Your task to perform on an android device: open app "Firefox Browser" Image 0: 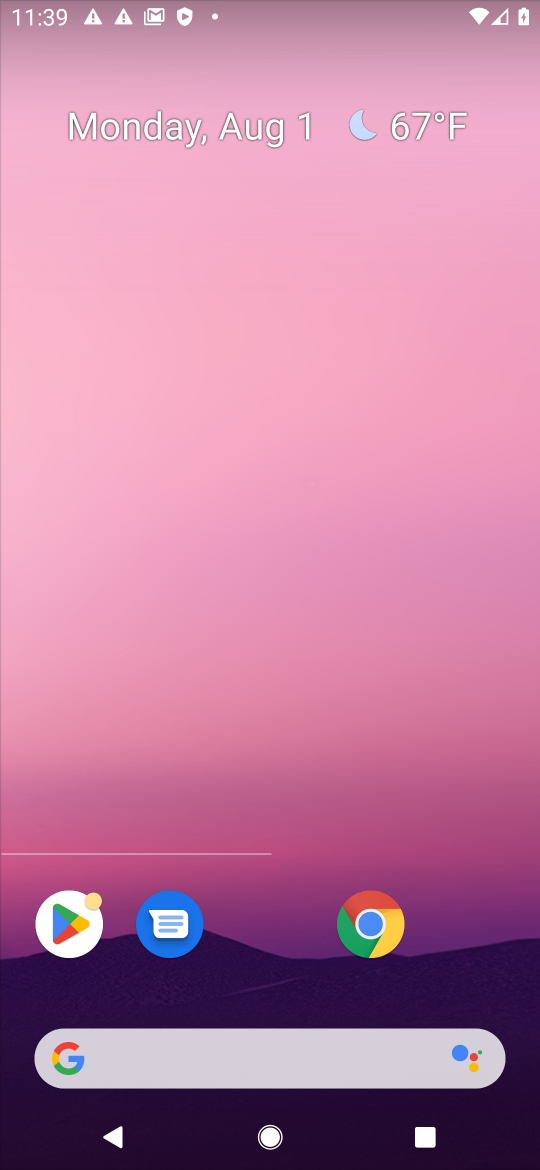
Step 0: press home button
Your task to perform on an android device: open app "Firefox Browser" Image 1: 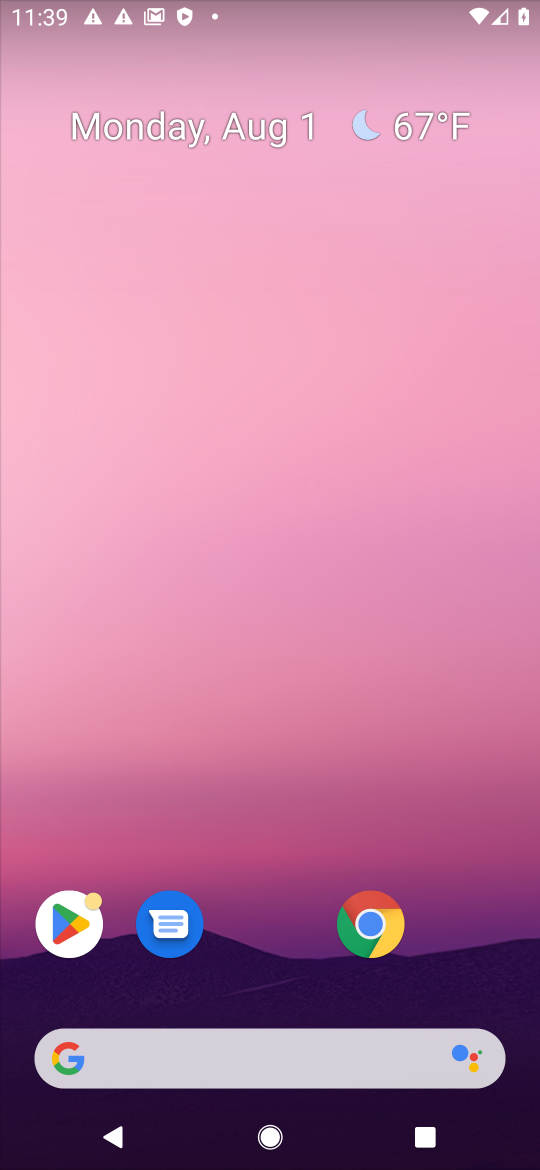
Step 1: click (61, 917)
Your task to perform on an android device: open app "Firefox Browser" Image 2: 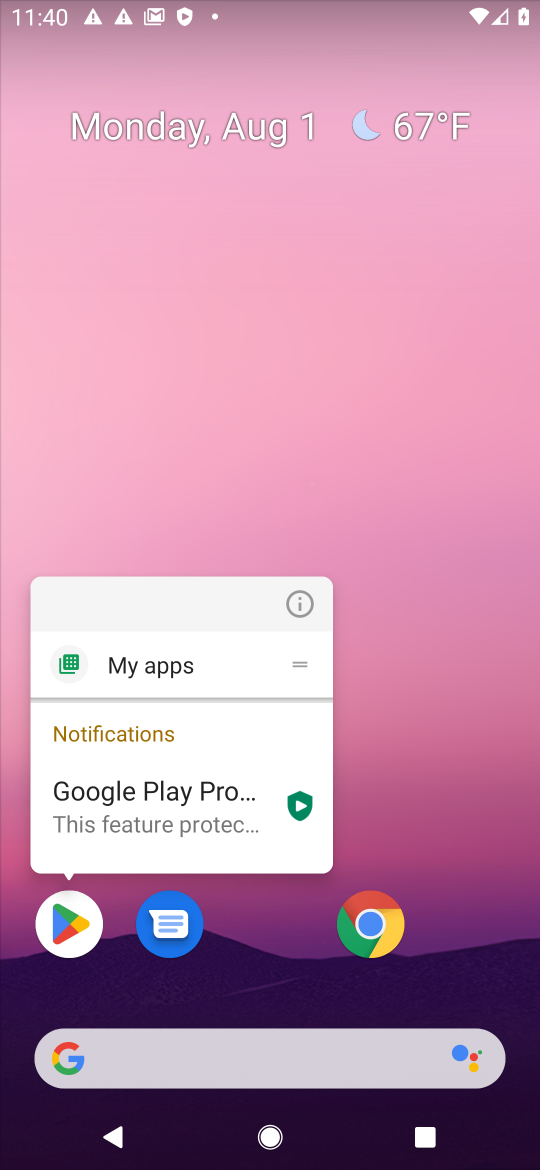
Step 2: click (58, 917)
Your task to perform on an android device: open app "Firefox Browser" Image 3: 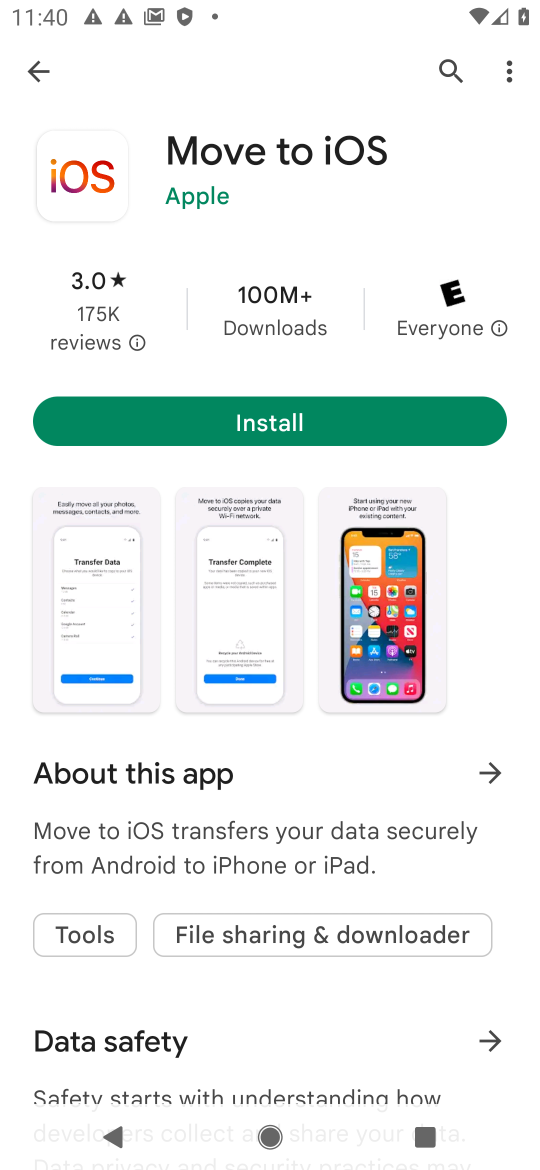
Step 3: click (62, 919)
Your task to perform on an android device: open app "Firefox Browser" Image 4: 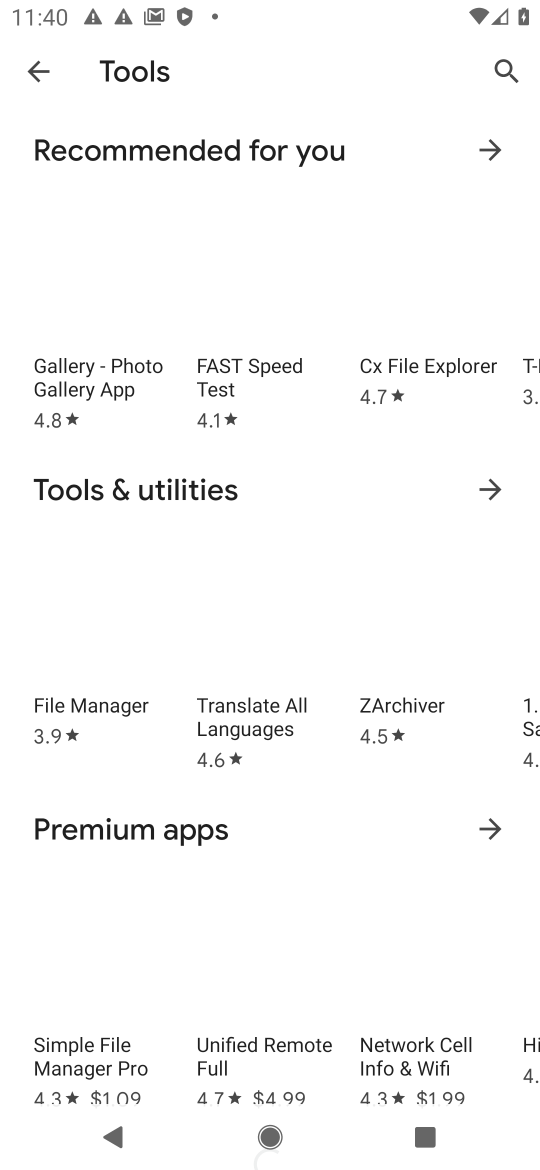
Step 4: click (53, 73)
Your task to perform on an android device: open app "Firefox Browser" Image 5: 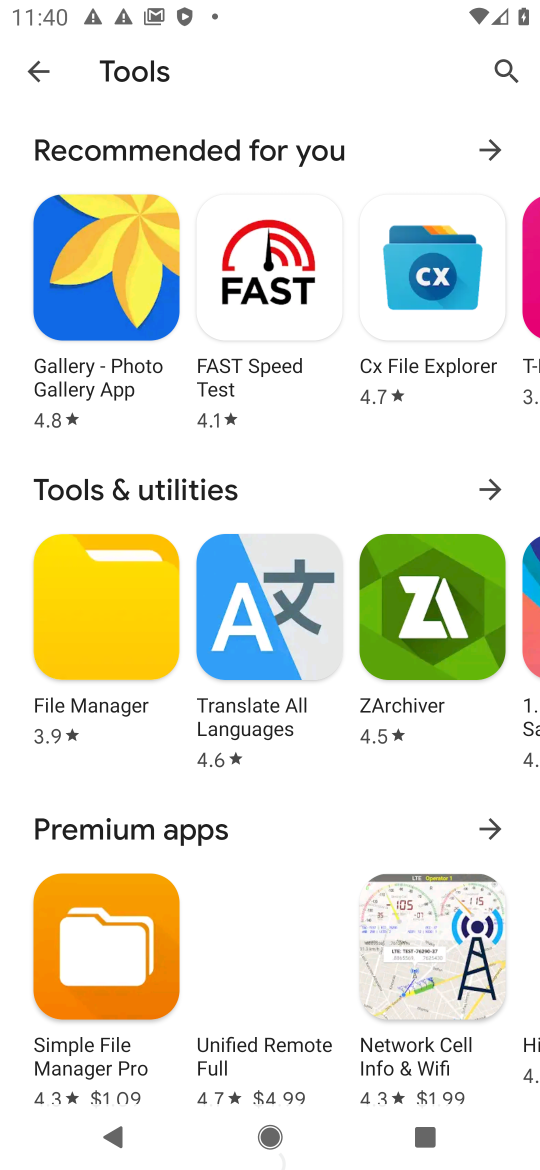
Step 5: click (501, 70)
Your task to perform on an android device: open app "Firefox Browser" Image 6: 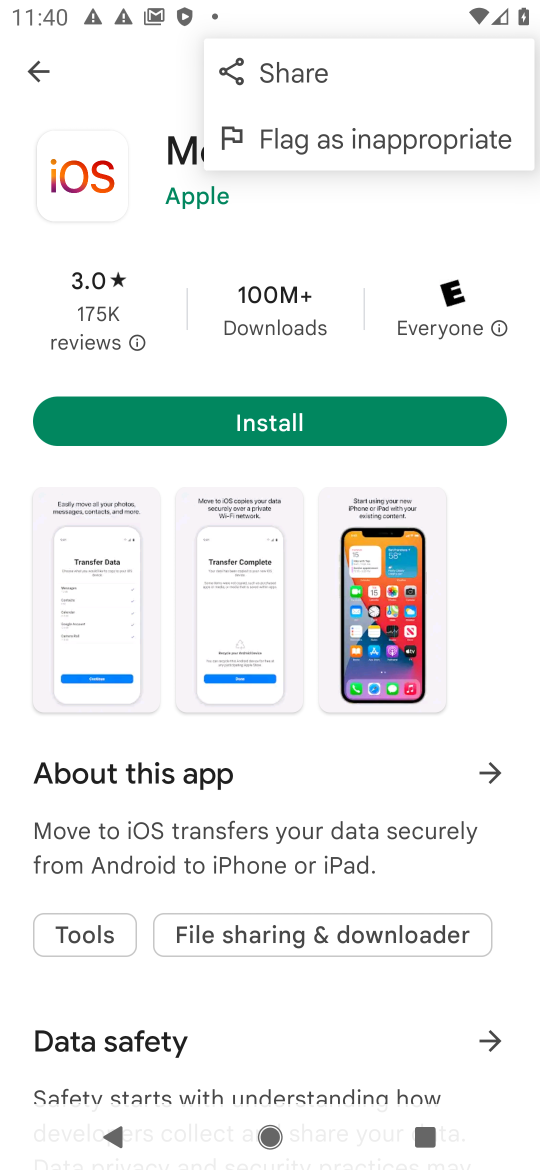
Step 6: click (117, 83)
Your task to perform on an android device: open app "Firefox Browser" Image 7: 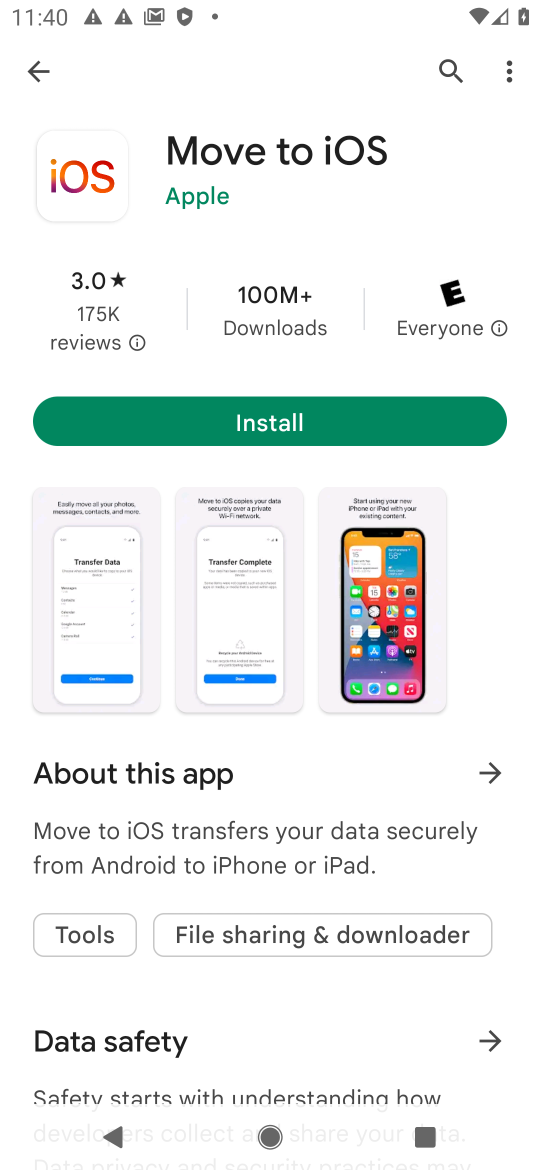
Step 7: click (438, 65)
Your task to perform on an android device: open app "Firefox Browser" Image 8: 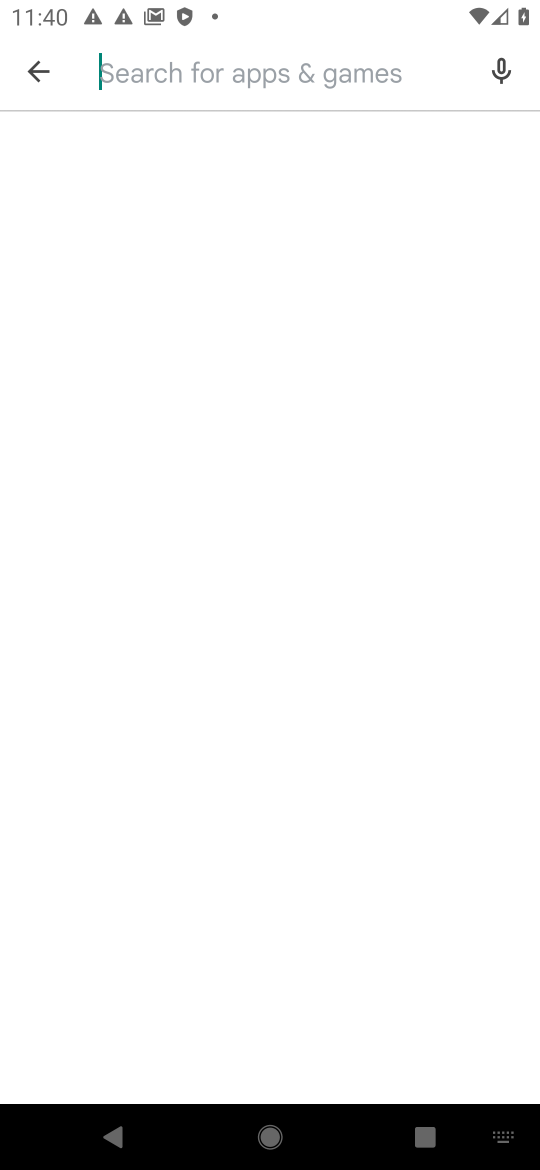
Step 8: type "Firefox Browser"
Your task to perform on an android device: open app "Firefox Browser" Image 9: 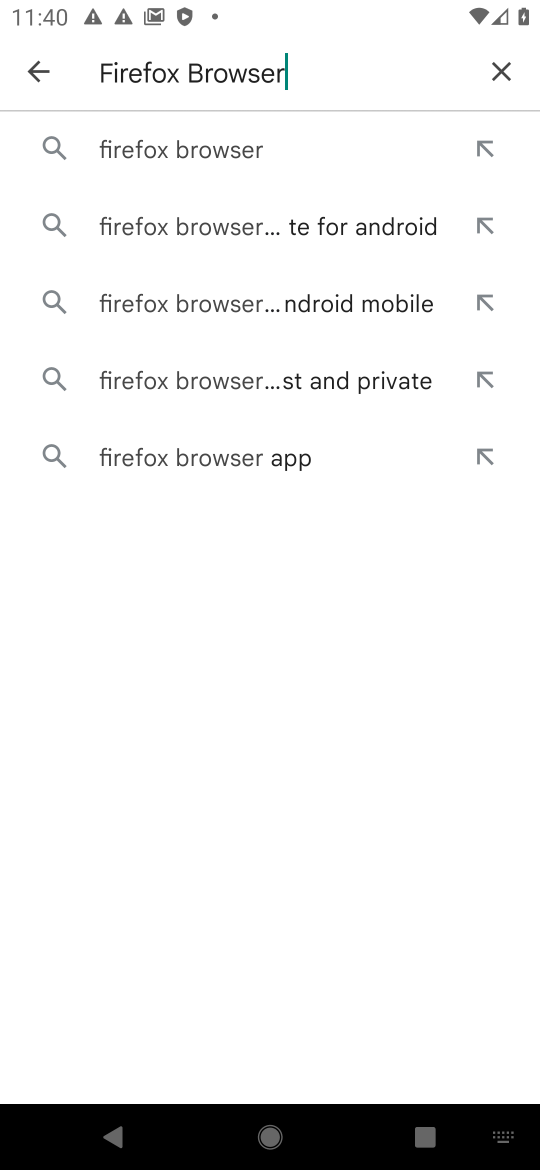
Step 9: click (241, 148)
Your task to perform on an android device: open app "Firefox Browser" Image 10: 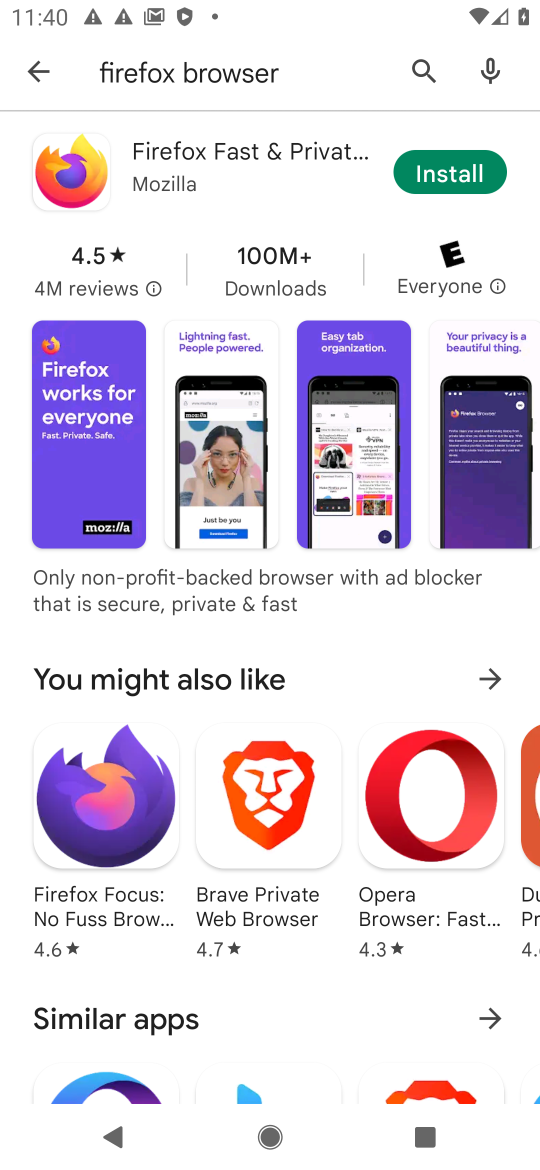
Step 10: task complete